Your task to perform on an android device: Check the news Image 0: 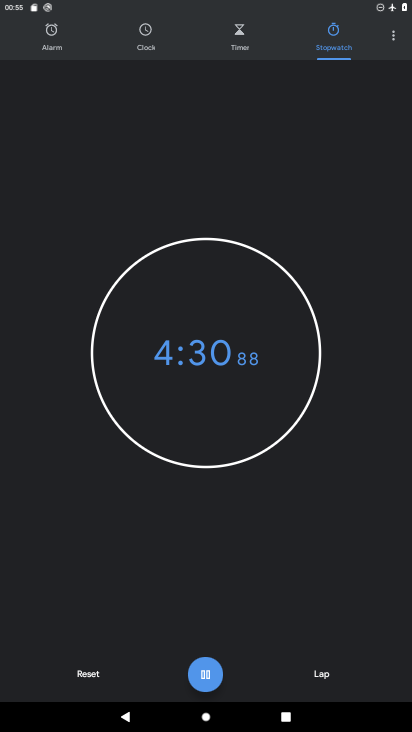
Step 0: press home button
Your task to perform on an android device: Check the news Image 1: 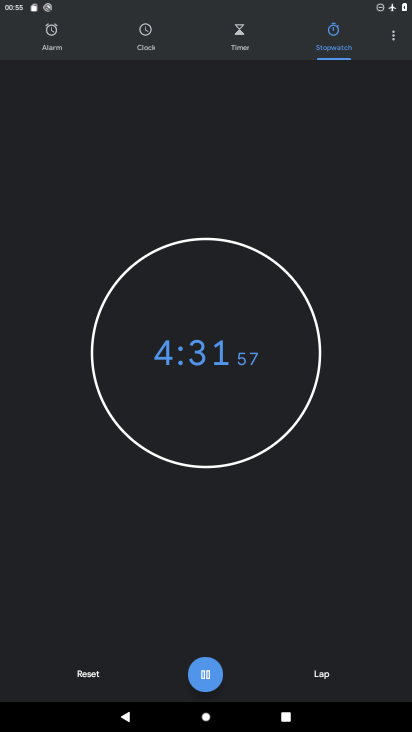
Step 1: press home button
Your task to perform on an android device: Check the news Image 2: 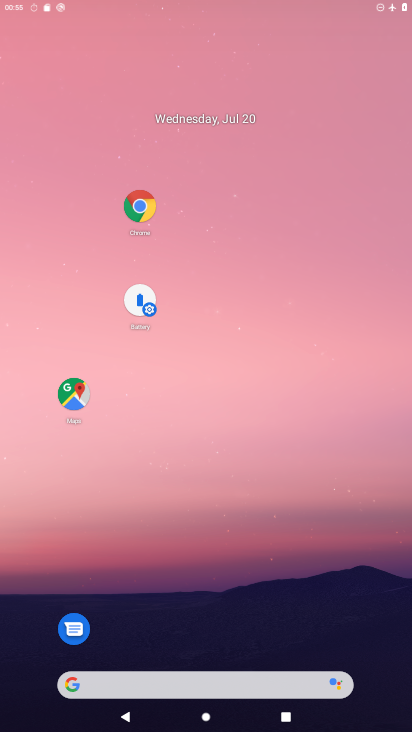
Step 2: drag from (197, 606) to (308, 187)
Your task to perform on an android device: Check the news Image 3: 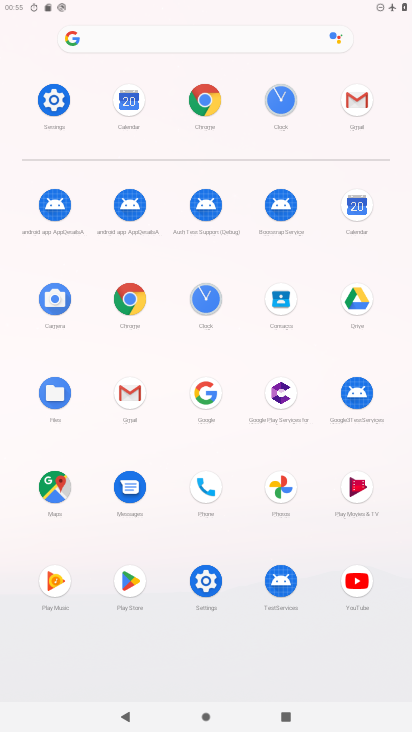
Step 3: click (197, 29)
Your task to perform on an android device: Check the news Image 4: 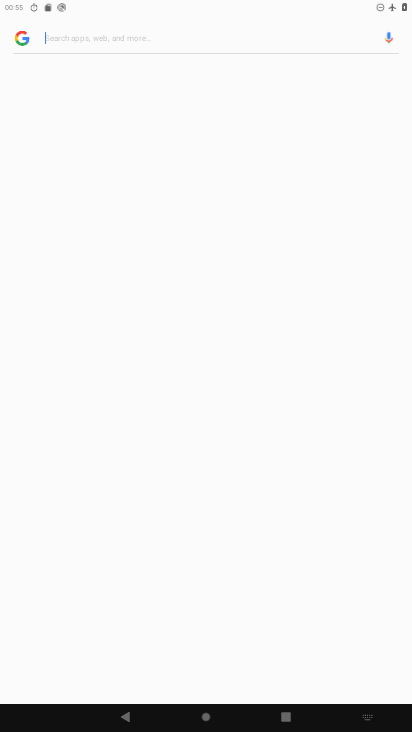
Step 4: type ""
Your task to perform on an android device: Check the news Image 5: 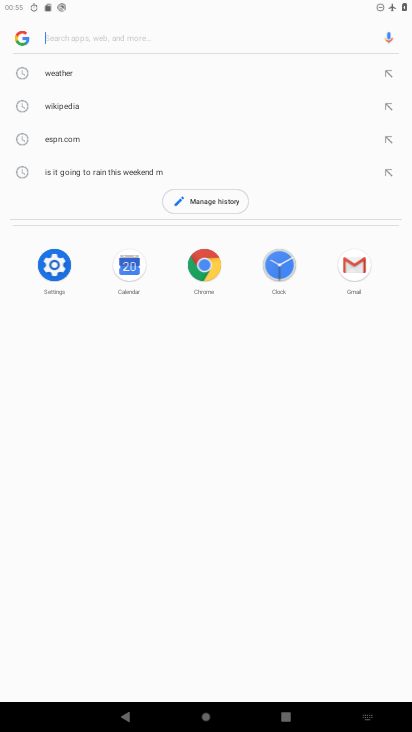
Step 5: type "news"
Your task to perform on an android device: Check the news Image 6: 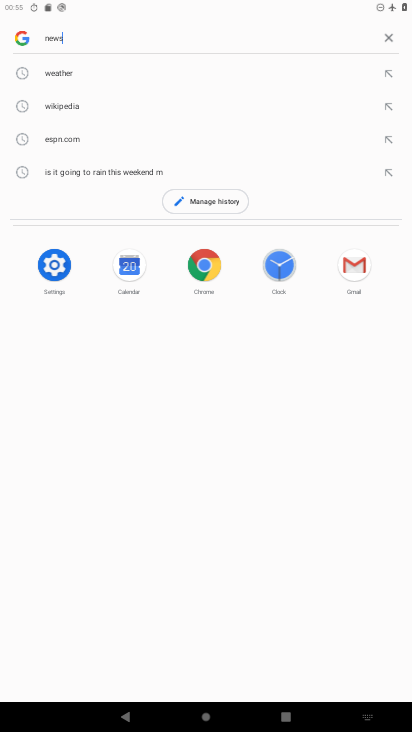
Step 6: type ""
Your task to perform on an android device: Check the news Image 7: 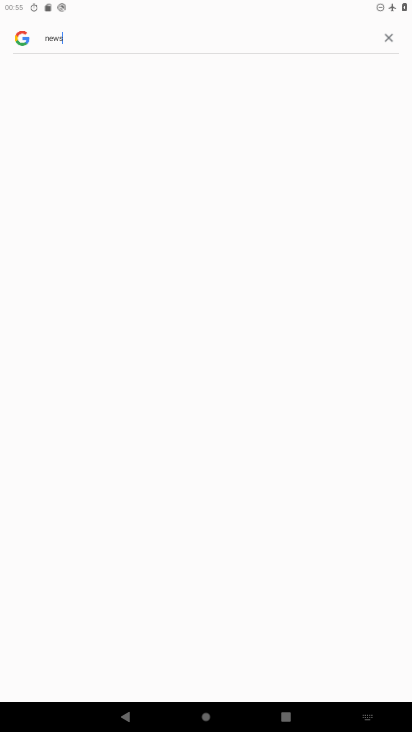
Step 7: drag from (100, 70) to (195, 428)
Your task to perform on an android device: Check the news Image 8: 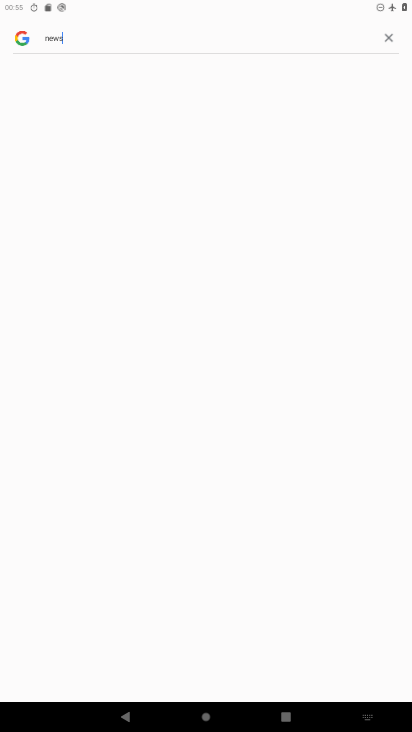
Step 8: click (66, 74)
Your task to perform on an android device: Check the news Image 9: 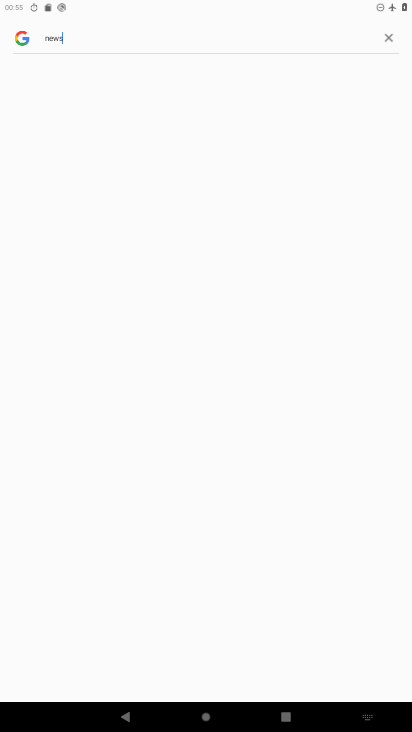
Step 9: click (104, 77)
Your task to perform on an android device: Check the news Image 10: 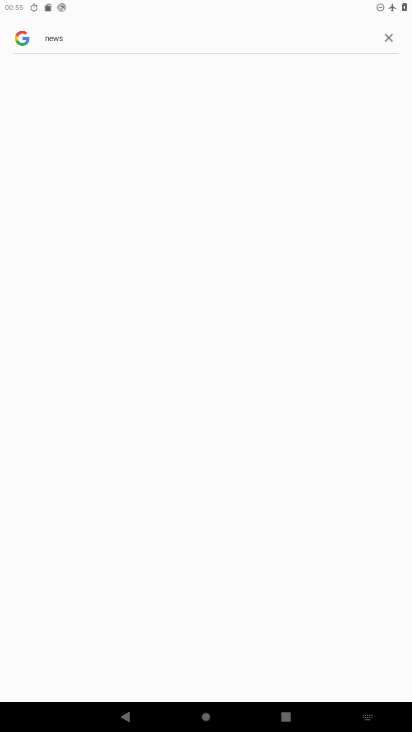
Step 10: click (82, 43)
Your task to perform on an android device: Check the news Image 11: 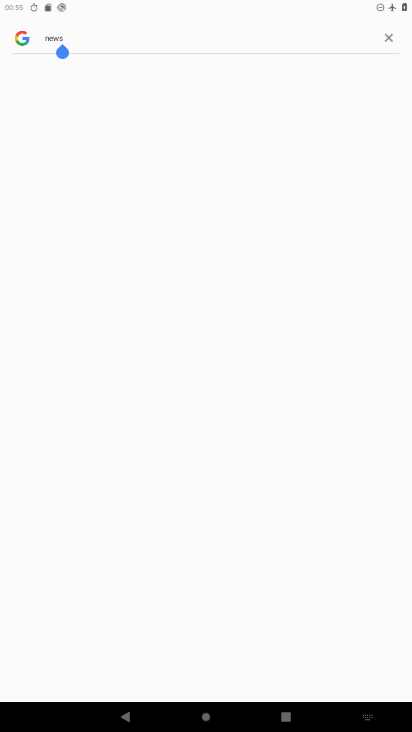
Step 11: task complete